Your task to perform on an android device: turn on the 12-hour format for clock Image 0: 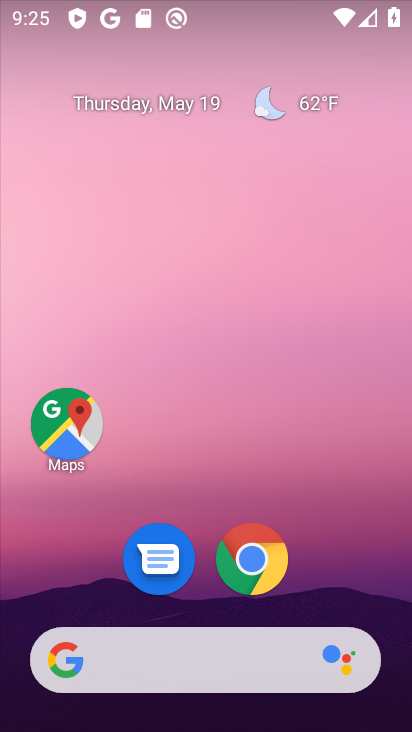
Step 0: drag from (336, 530) to (207, 100)
Your task to perform on an android device: turn on the 12-hour format for clock Image 1: 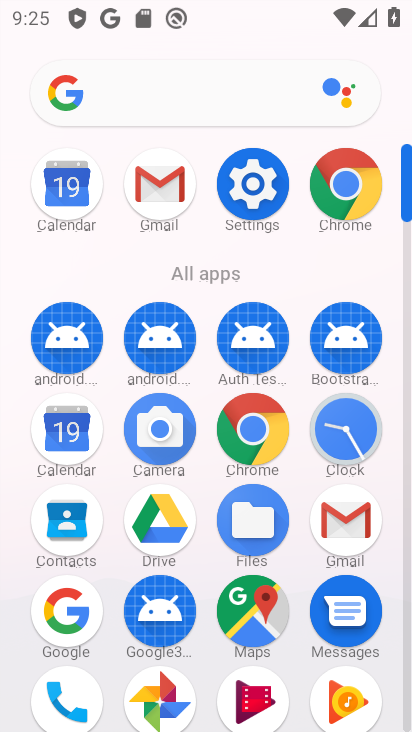
Step 1: click (333, 447)
Your task to perform on an android device: turn on the 12-hour format for clock Image 2: 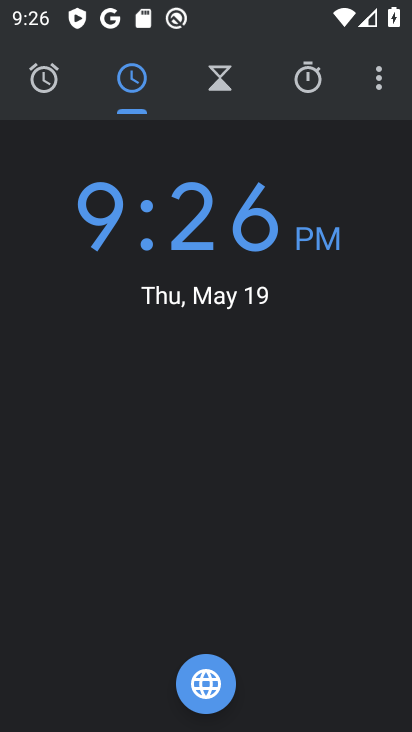
Step 2: click (372, 75)
Your task to perform on an android device: turn on the 12-hour format for clock Image 3: 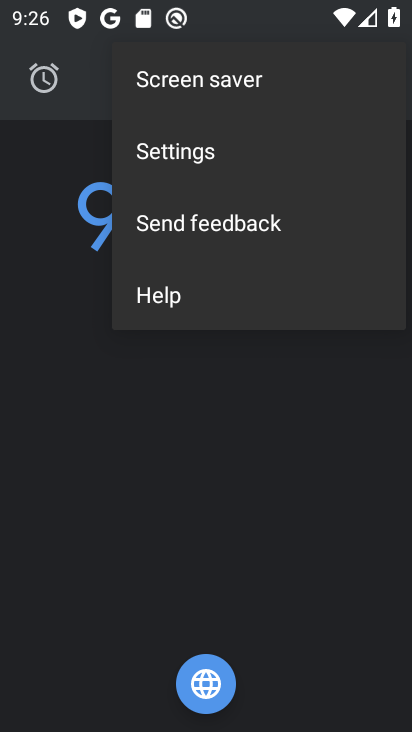
Step 3: click (198, 172)
Your task to perform on an android device: turn on the 12-hour format for clock Image 4: 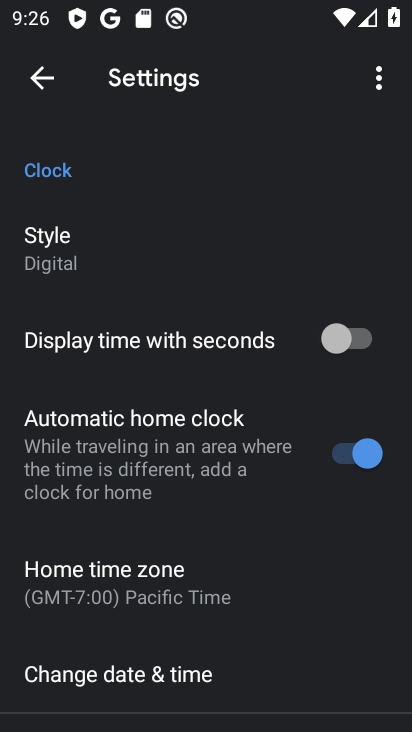
Step 4: drag from (273, 619) to (226, 281)
Your task to perform on an android device: turn on the 12-hour format for clock Image 5: 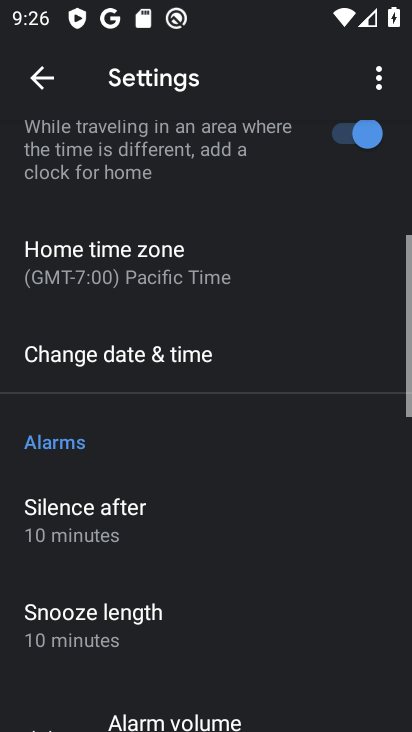
Step 5: click (226, 281)
Your task to perform on an android device: turn on the 12-hour format for clock Image 6: 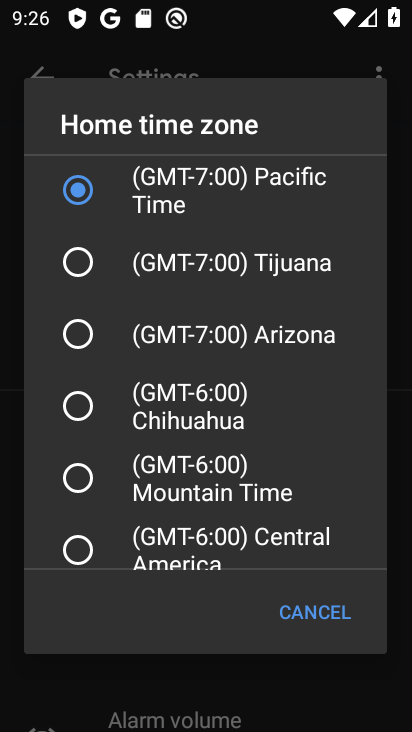
Step 6: click (315, 621)
Your task to perform on an android device: turn on the 12-hour format for clock Image 7: 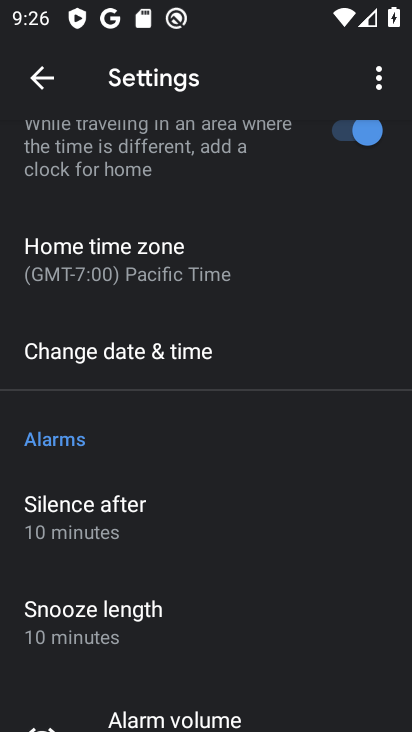
Step 7: click (192, 353)
Your task to perform on an android device: turn on the 12-hour format for clock Image 8: 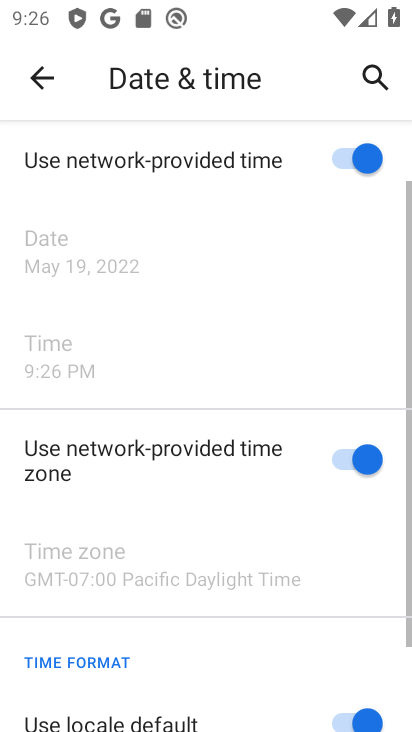
Step 8: task complete